Your task to perform on an android device: check data usage Image 0: 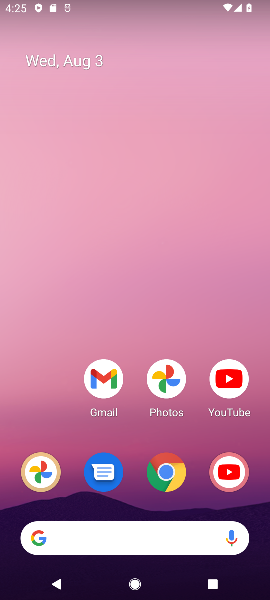
Step 0: drag from (142, 433) to (157, 99)
Your task to perform on an android device: check data usage Image 1: 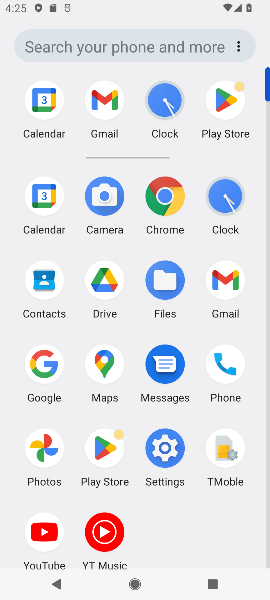
Step 1: click (175, 446)
Your task to perform on an android device: check data usage Image 2: 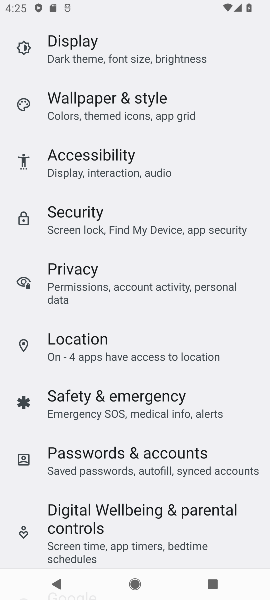
Step 2: drag from (171, 145) to (164, 516)
Your task to perform on an android device: check data usage Image 3: 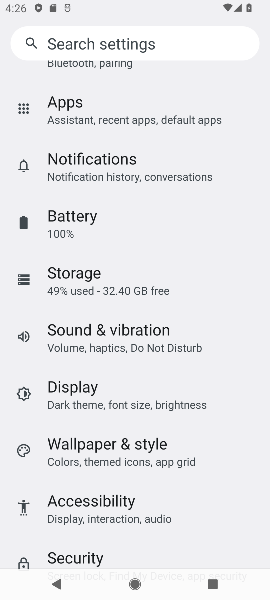
Step 3: drag from (223, 111) to (183, 498)
Your task to perform on an android device: check data usage Image 4: 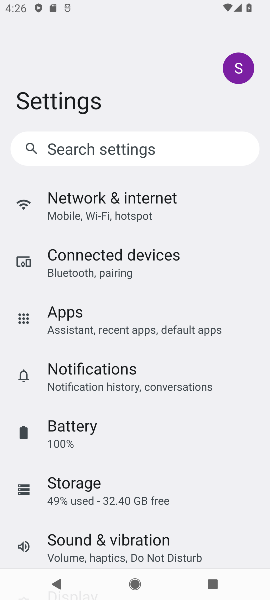
Step 4: click (122, 204)
Your task to perform on an android device: check data usage Image 5: 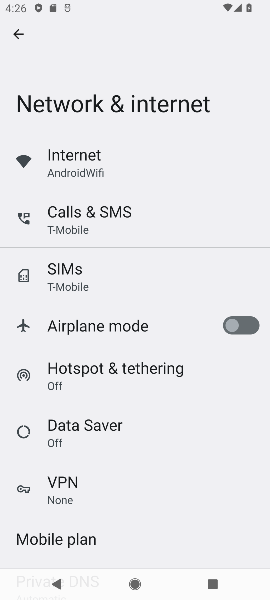
Step 5: click (93, 161)
Your task to perform on an android device: check data usage Image 6: 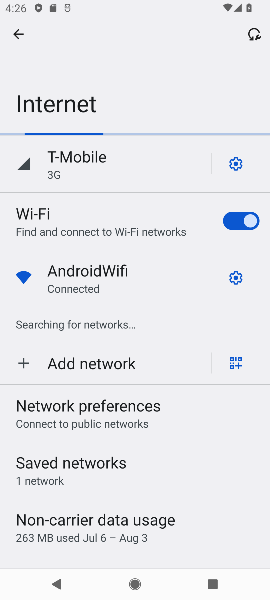
Step 6: drag from (199, 488) to (170, 177)
Your task to perform on an android device: check data usage Image 7: 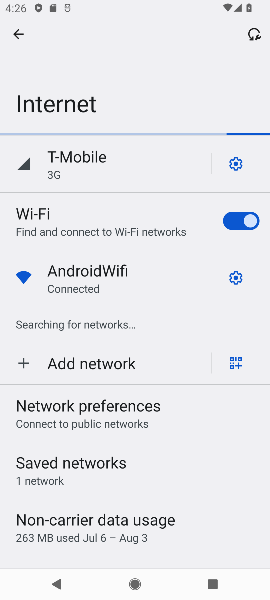
Step 7: click (230, 161)
Your task to perform on an android device: check data usage Image 8: 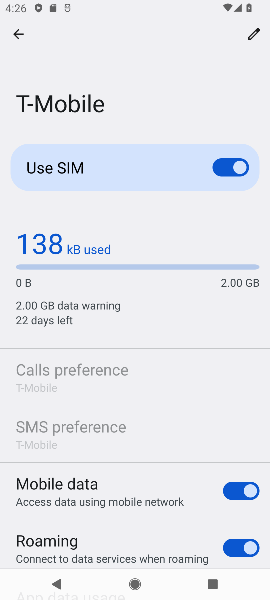
Step 8: task complete